Your task to perform on an android device: see creations saved in the google photos Image 0: 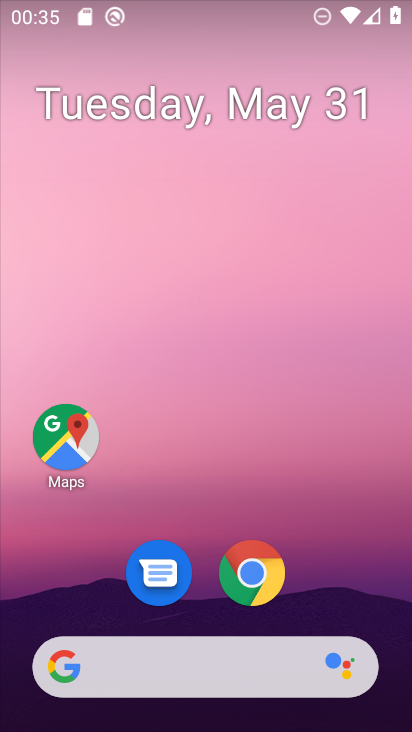
Step 0: drag from (187, 669) to (308, 0)
Your task to perform on an android device: see creations saved in the google photos Image 1: 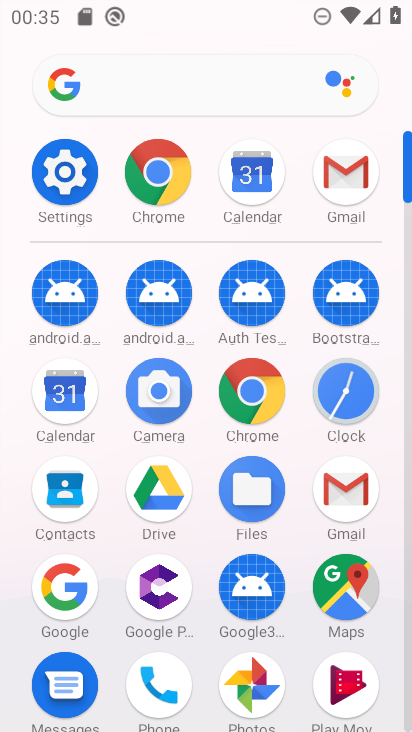
Step 1: click (258, 659)
Your task to perform on an android device: see creations saved in the google photos Image 2: 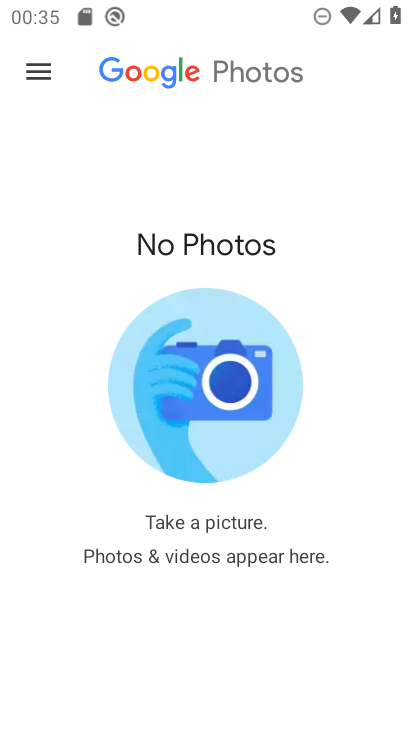
Step 2: click (41, 79)
Your task to perform on an android device: see creations saved in the google photos Image 3: 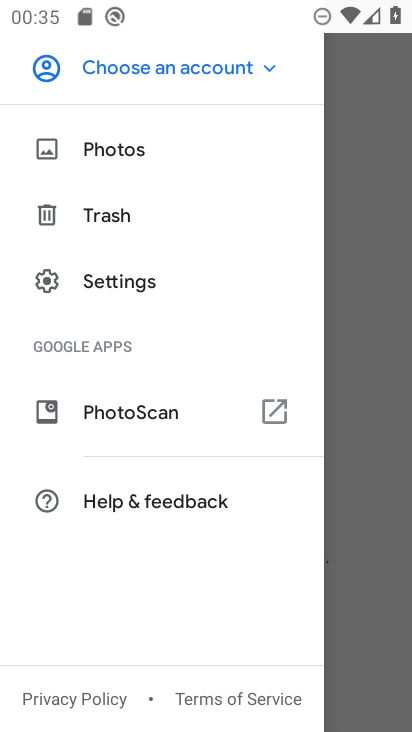
Step 3: click (160, 143)
Your task to perform on an android device: see creations saved in the google photos Image 4: 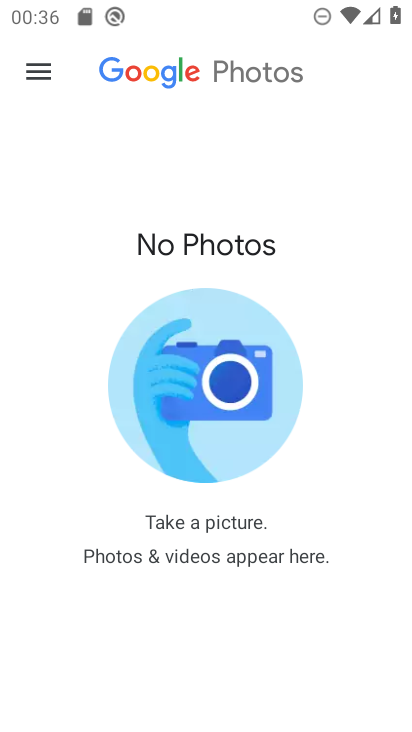
Step 4: task complete